Your task to perform on an android device: Toggle the flashlight Image 0: 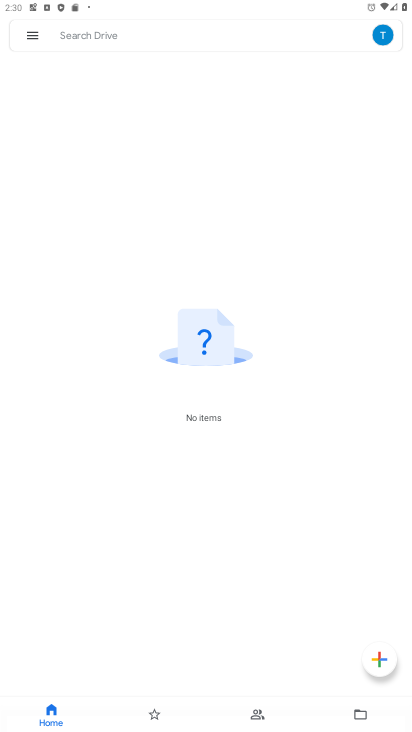
Step 0: press home button
Your task to perform on an android device: Toggle the flashlight Image 1: 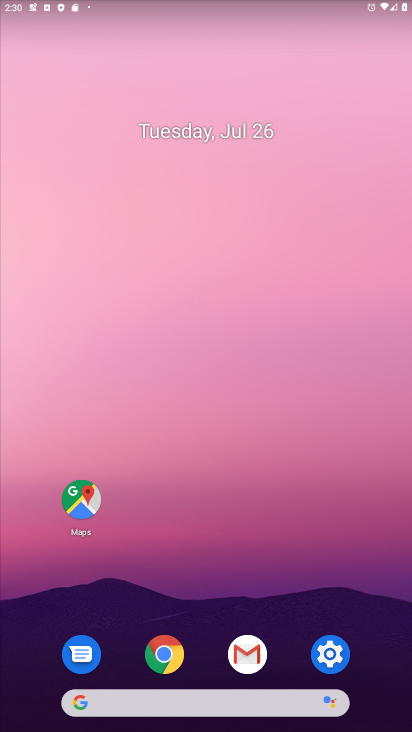
Step 1: click (319, 658)
Your task to perform on an android device: Toggle the flashlight Image 2: 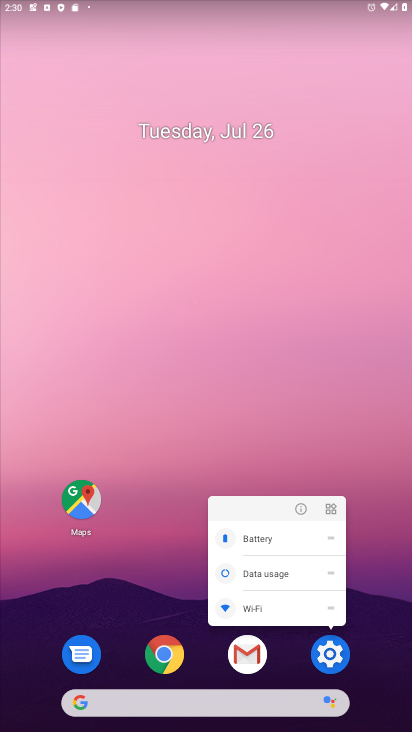
Step 2: click (325, 664)
Your task to perform on an android device: Toggle the flashlight Image 3: 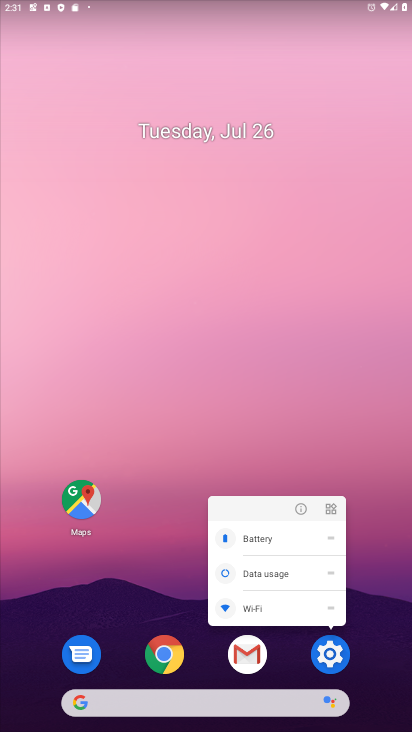
Step 3: click (325, 664)
Your task to perform on an android device: Toggle the flashlight Image 4: 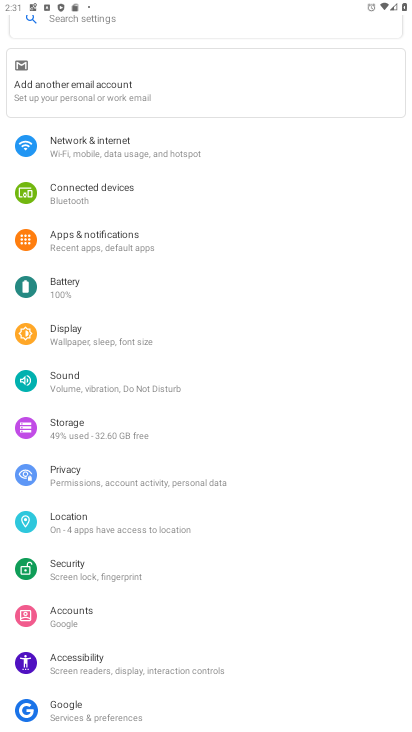
Step 4: click (86, 16)
Your task to perform on an android device: Toggle the flashlight Image 5: 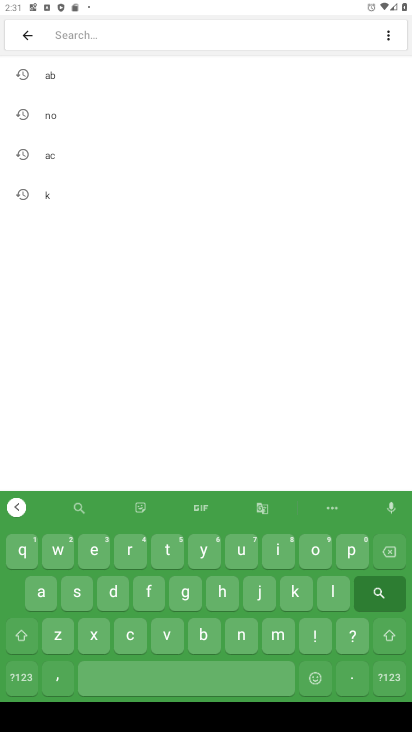
Step 5: click (155, 594)
Your task to perform on an android device: Toggle the flashlight Image 6: 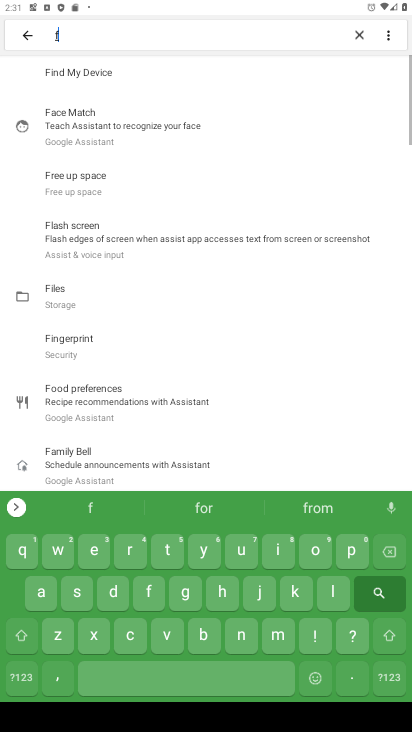
Step 6: click (336, 598)
Your task to perform on an android device: Toggle the flashlight Image 7: 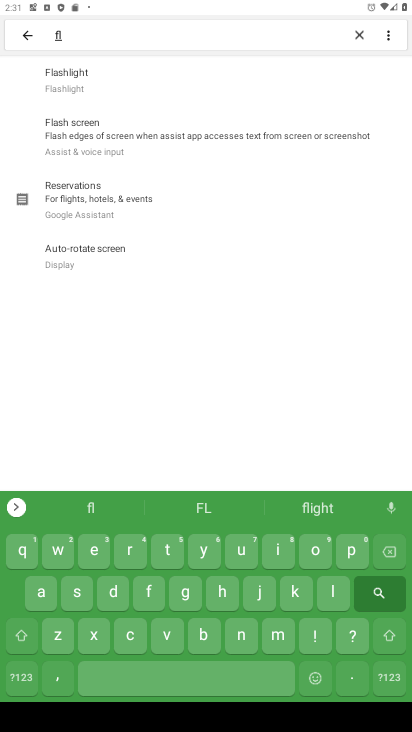
Step 7: click (124, 86)
Your task to perform on an android device: Toggle the flashlight Image 8: 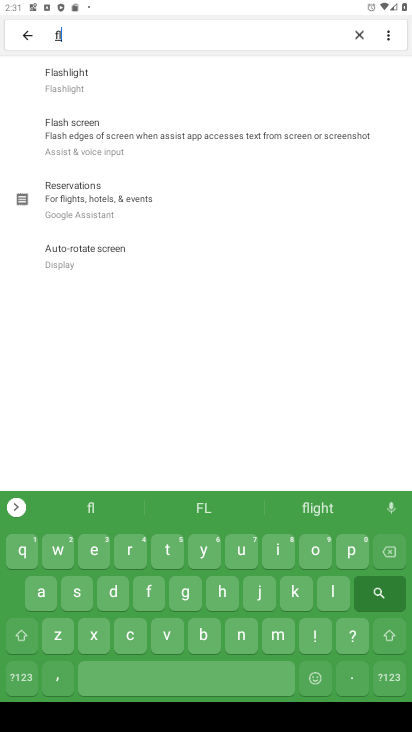
Step 8: click (124, 87)
Your task to perform on an android device: Toggle the flashlight Image 9: 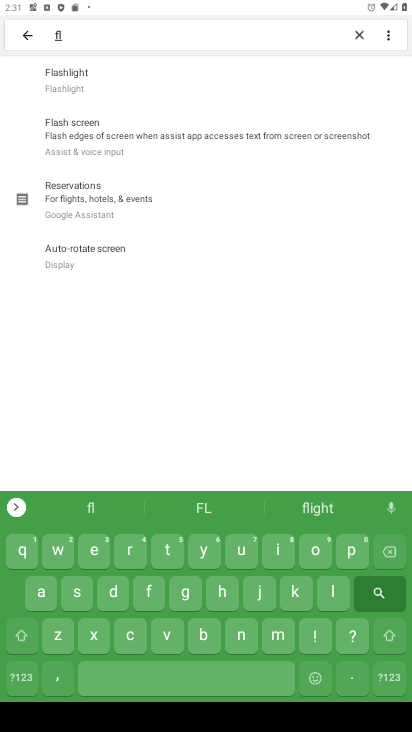
Step 9: task complete